Your task to perform on an android device: Open display settings Image 0: 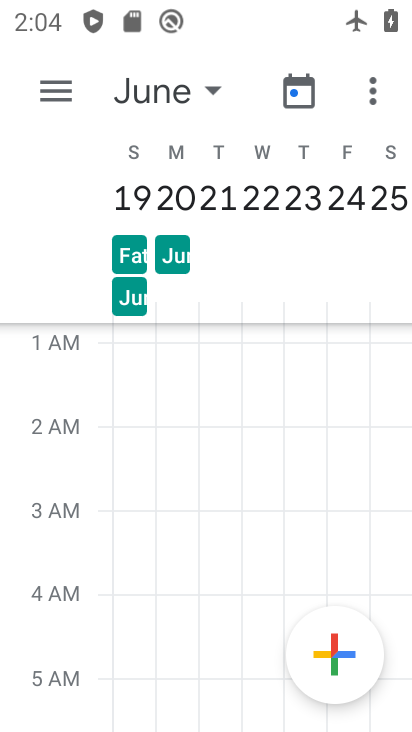
Step 0: press home button
Your task to perform on an android device: Open display settings Image 1: 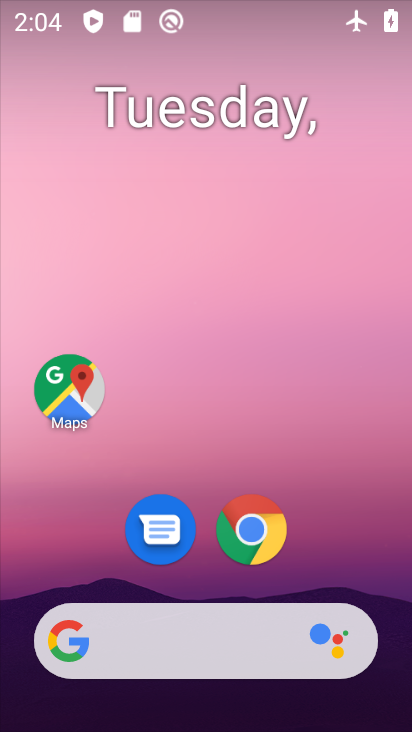
Step 1: drag from (358, 592) to (278, 57)
Your task to perform on an android device: Open display settings Image 2: 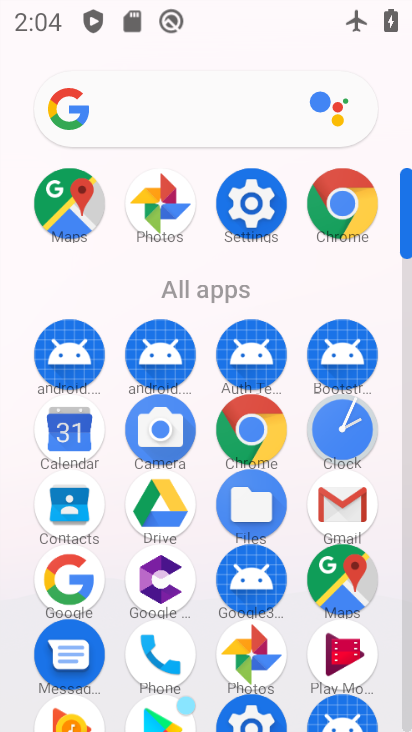
Step 2: click (256, 210)
Your task to perform on an android device: Open display settings Image 3: 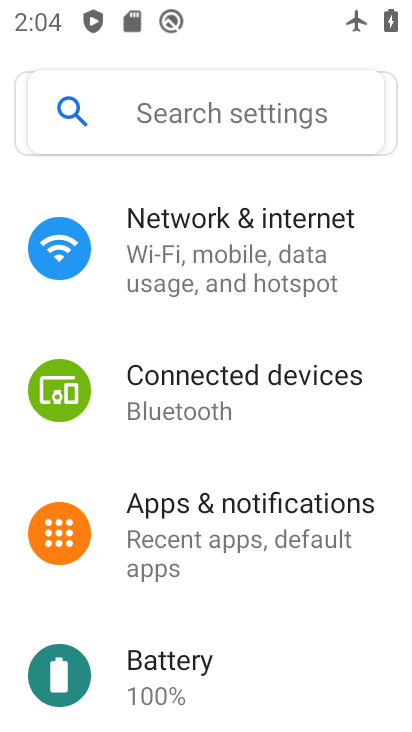
Step 3: drag from (248, 629) to (241, 242)
Your task to perform on an android device: Open display settings Image 4: 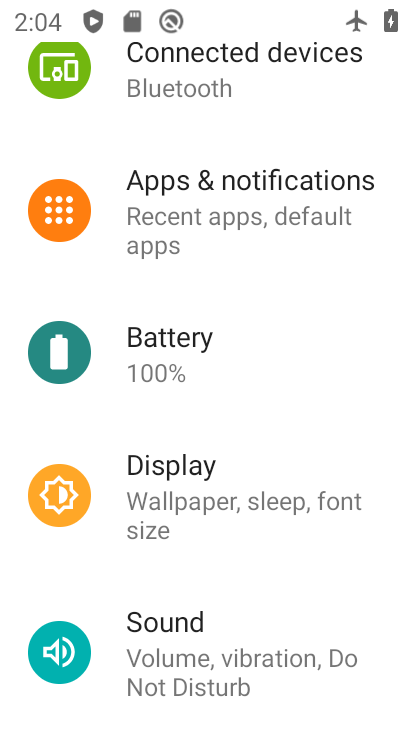
Step 4: click (248, 491)
Your task to perform on an android device: Open display settings Image 5: 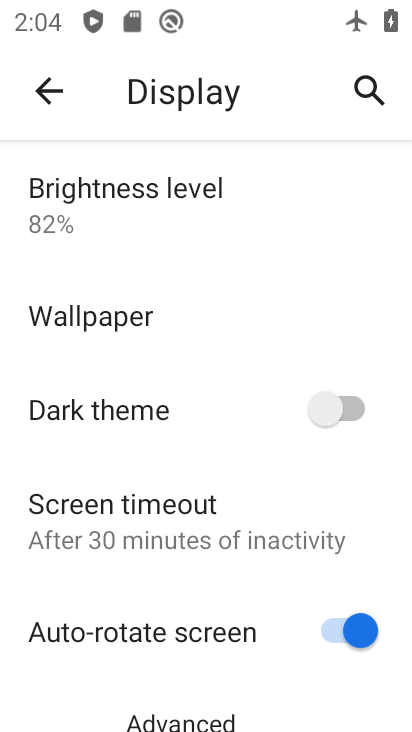
Step 5: task complete